Your task to perform on an android device: change timer sound Image 0: 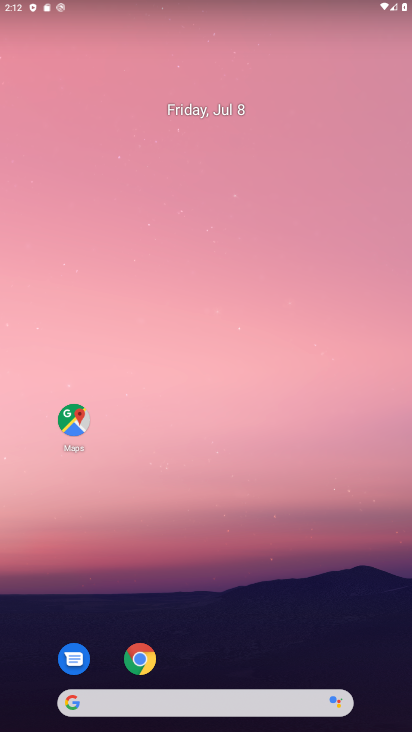
Step 0: drag from (335, 615) to (301, 355)
Your task to perform on an android device: change timer sound Image 1: 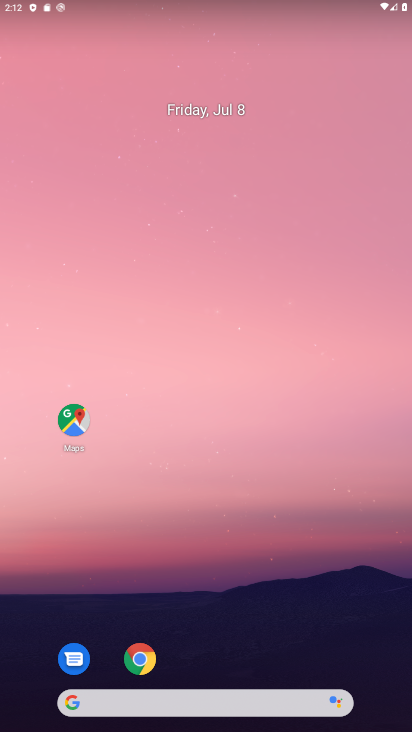
Step 1: drag from (331, 527) to (258, 149)
Your task to perform on an android device: change timer sound Image 2: 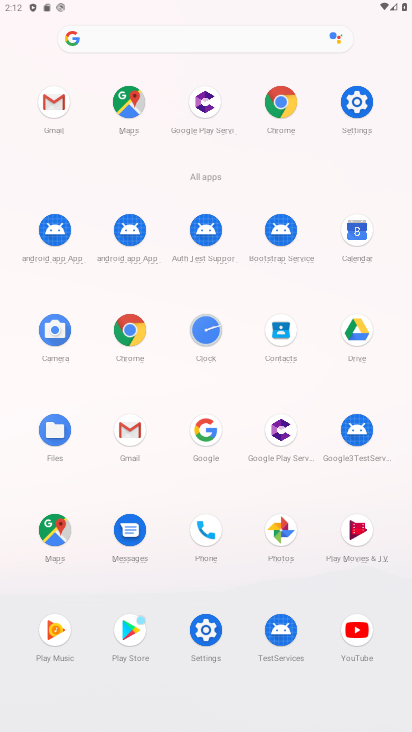
Step 2: click (205, 332)
Your task to perform on an android device: change timer sound Image 3: 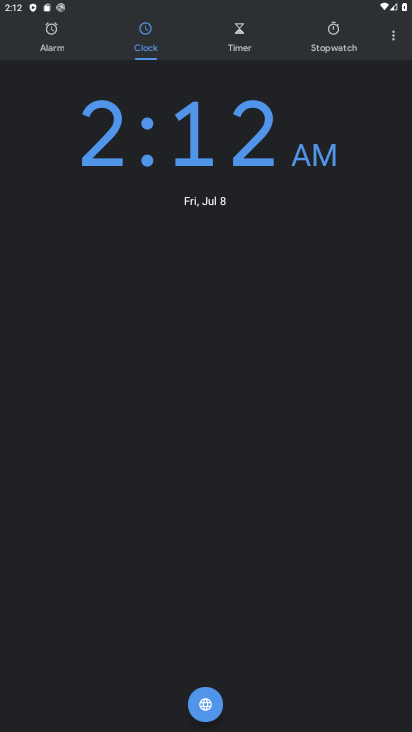
Step 3: click (395, 42)
Your task to perform on an android device: change timer sound Image 4: 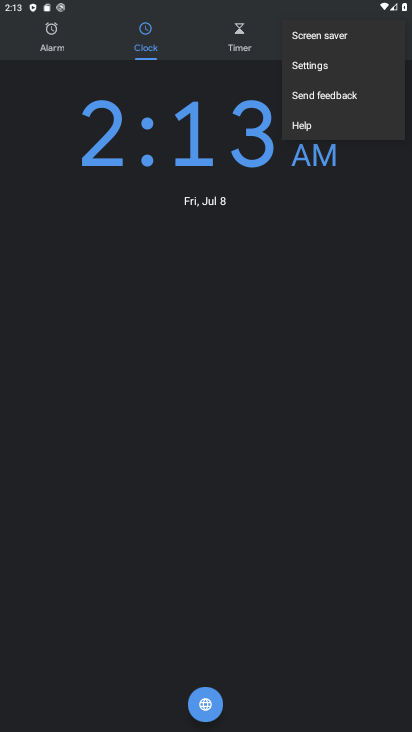
Step 4: click (291, 59)
Your task to perform on an android device: change timer sound Image 5: 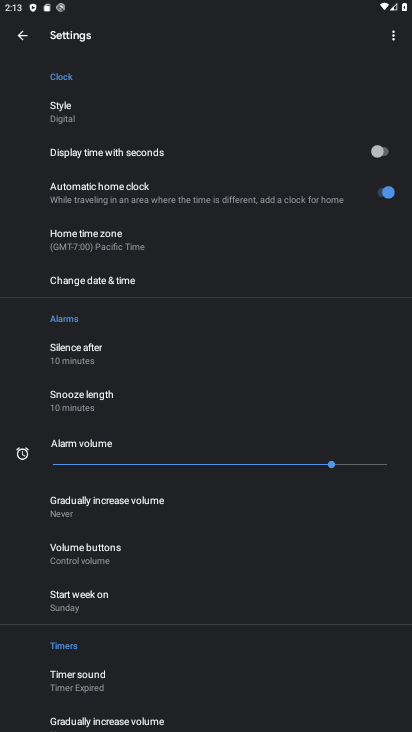
Step 5: click (81, 669)
Your task to perform on an android device: change timer sound Image 6: 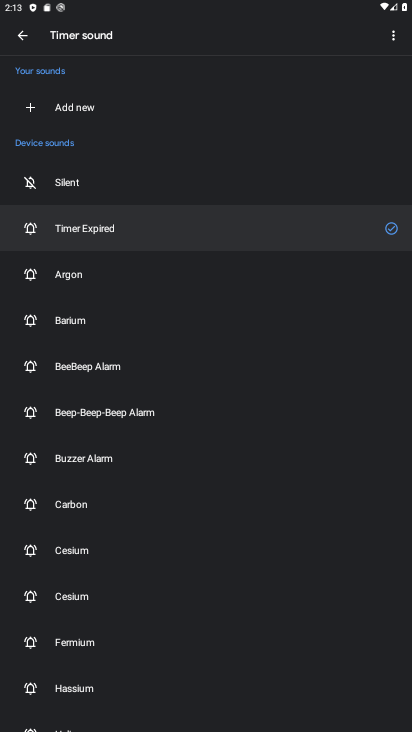
Step 6: click (153, 299)
Your task to perform on an android device: change timer sound Image 7: 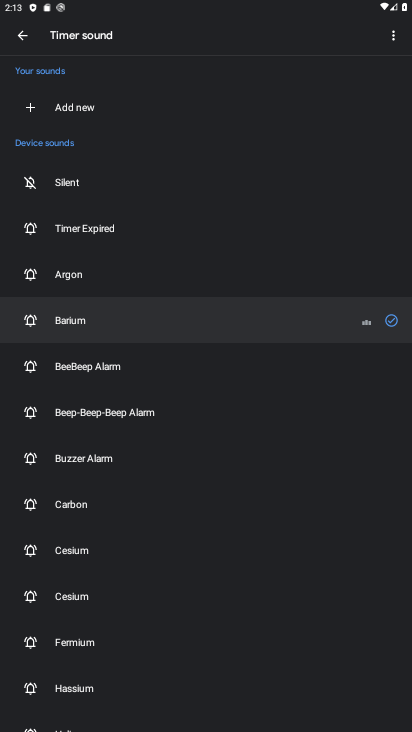
Step 7: task complete